Your task to perform on an android device: find snoozed emails in the gmail app Image 0: 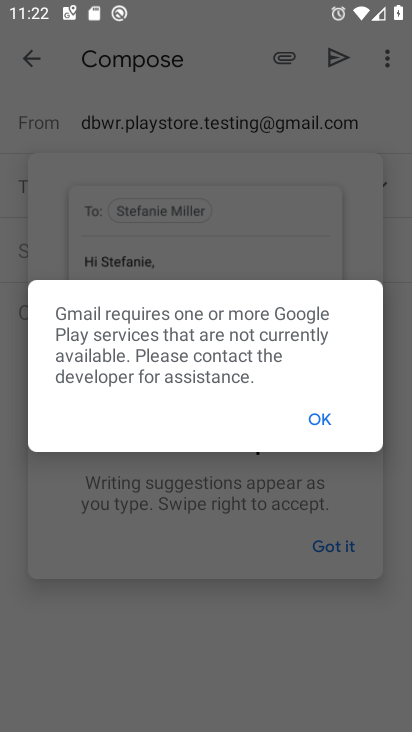
Step 0: press back button
Your task to perform on an android device: find snoozed emails in the gmail app Image 1: 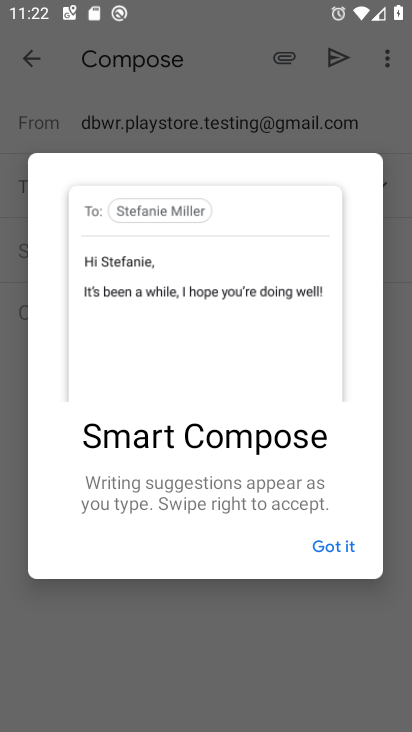
Step 1: press back button
Your task to perform on an android device: find snoozed emails in the gmail app Image 2: 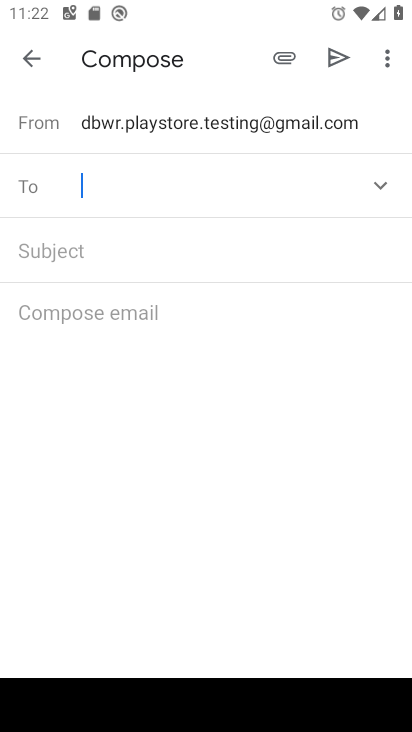
Step 2: press back button
Your task to perform on an android device: find snoozed emails in the gmail app Image 3: 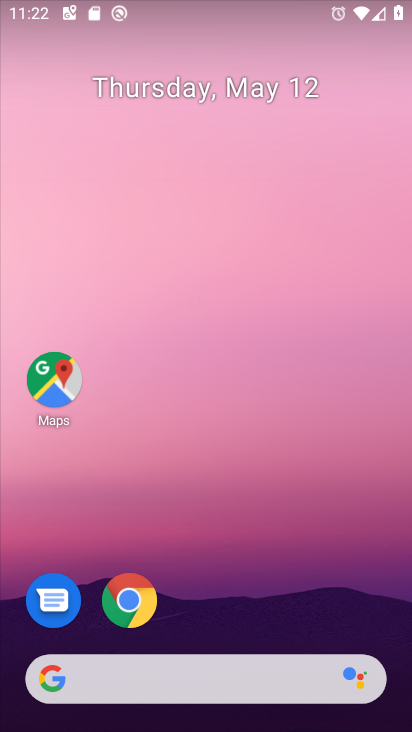
Step 3: drag from (269, 386) to (123, 81)
Your task to perform on an android device: find snoozed emails in the gmail app Image 4: 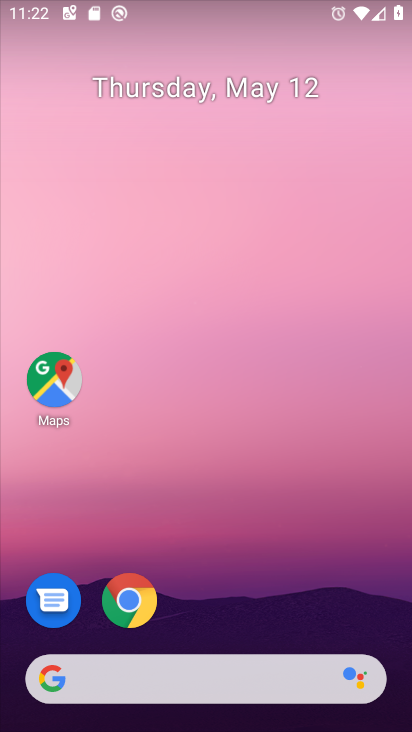
Step 4: drag from (227, 622) to (204, 135)
Your task to perform on an android device: find snoozed emails in the gmail app Image 5: 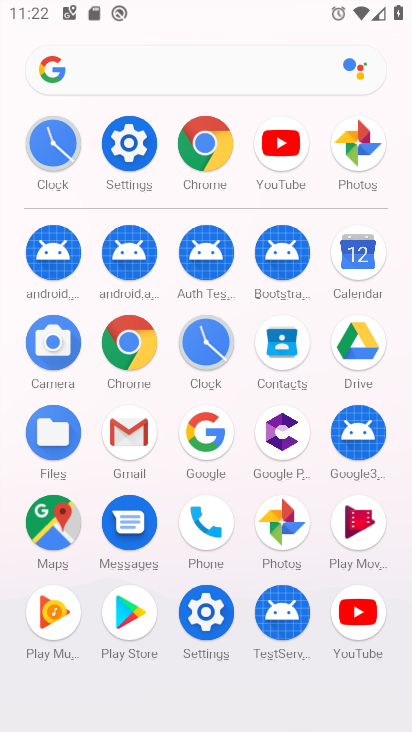
Step 5: click (131, 446)
Your task to perform on an android device: find snoozed emails in the gmail app Image 6: 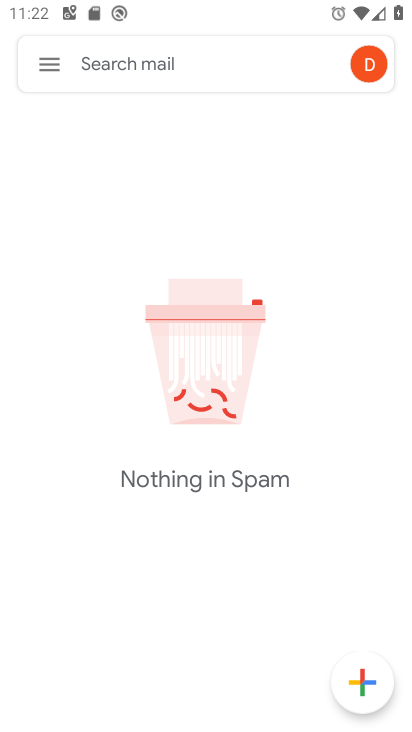
Step 6: click (41, 65)
Your task to perform on an android device: find snoozed emails in the gmail app Image 7: 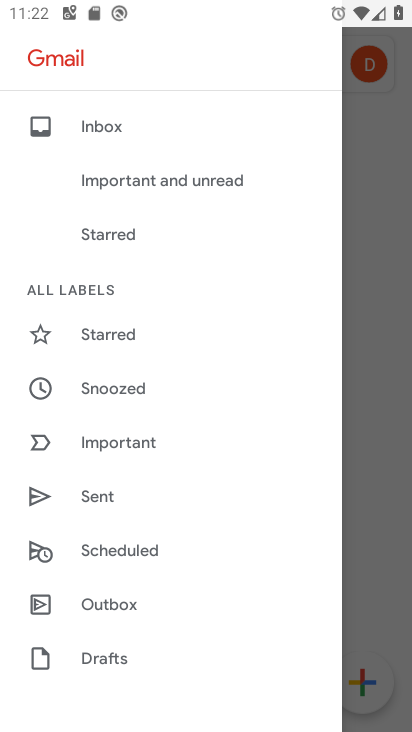
Step 7: click (97, 393)
Your task to perform on an android device: find snoozed emails in the gmail app Image 8: 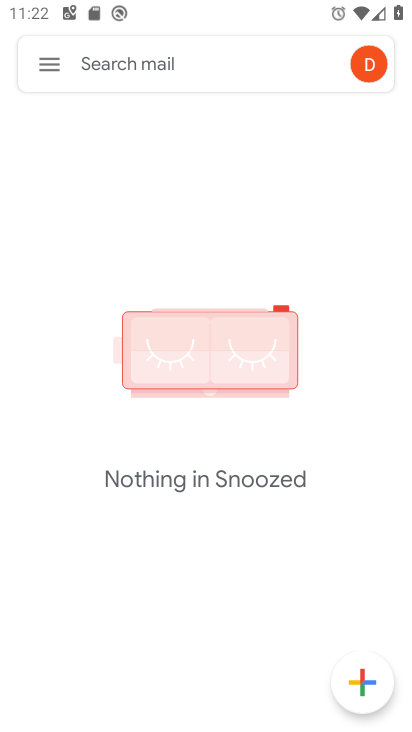
Step 8: task complete